Your task to perform on an android device: Open CNN.com Image 0: 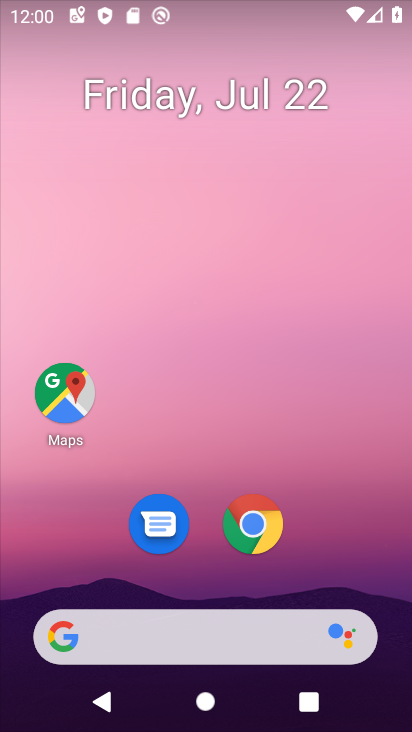
Step 0: click (207, 648)
Your task to perform on an android device: Open CNN.com Image 1: 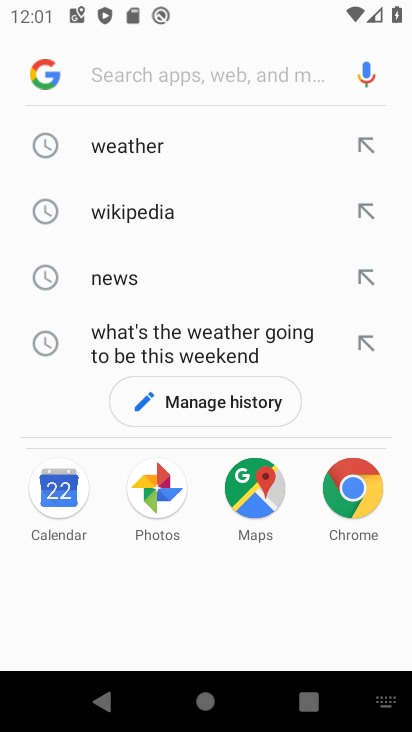
Step 1: type "cnn.com"
Your task to perform on an android device: Open CNN.com Image 2: 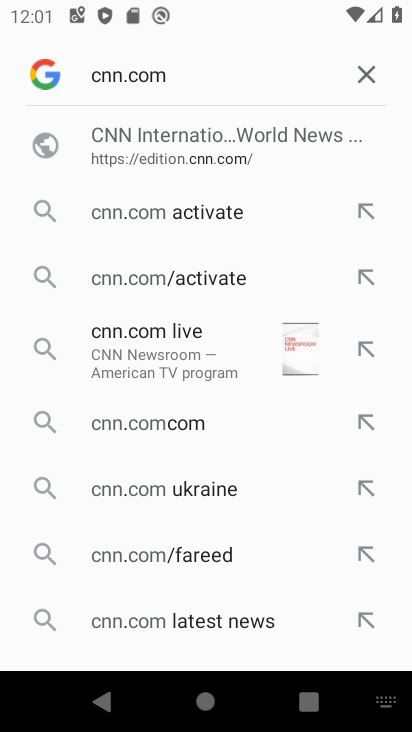
Step 2: click (165, 348)
Your task to perform on an android device: Open CNN.com Image 3: 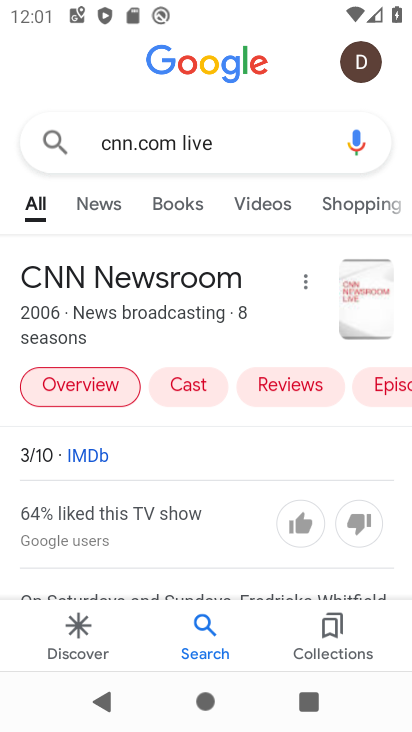
Step 3: click (226, 139)
Your task to perform on an android device: Open CNN.com Image 4: 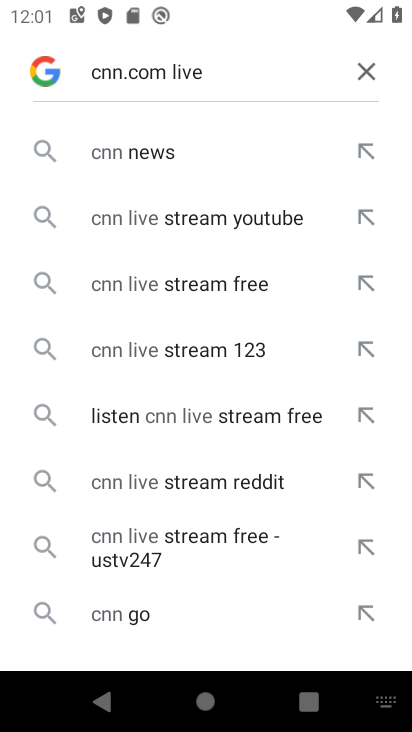
Step 4: click (159, 151)
Your task to perform on an android device: Open CNN.com Image 5: 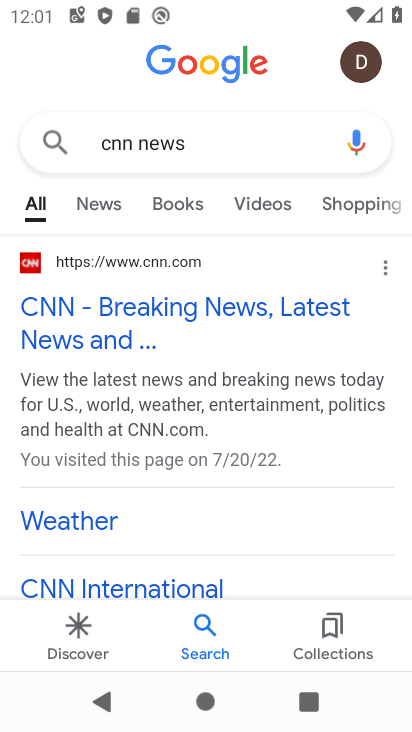
Step 5: click (124, 302)
Your task to perform on an android device: Open CNN.com Image 6: 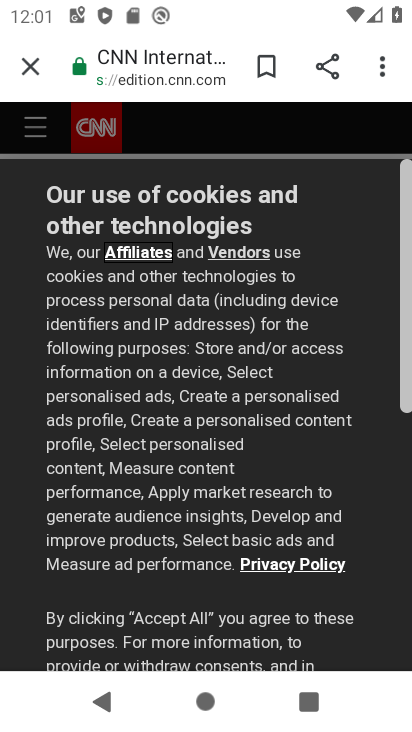
Step 6: drag from (256, 569) to (362, 29)
Your task to perform on an android device: Open CNN.com Image 7: 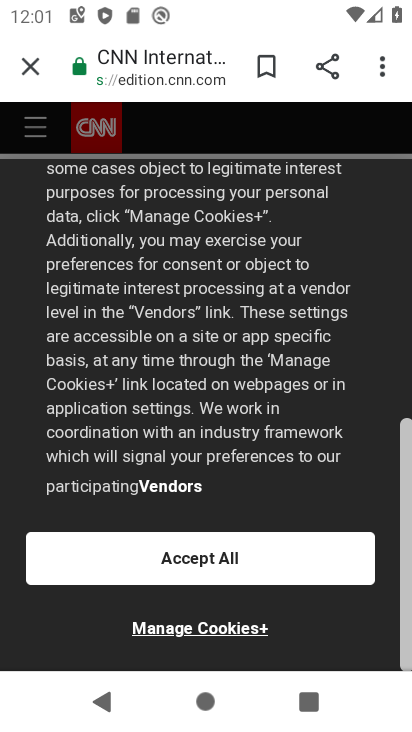
Step 7: click (261, 567)
Your task to perform on an android device: Open CNN.com Image 8: 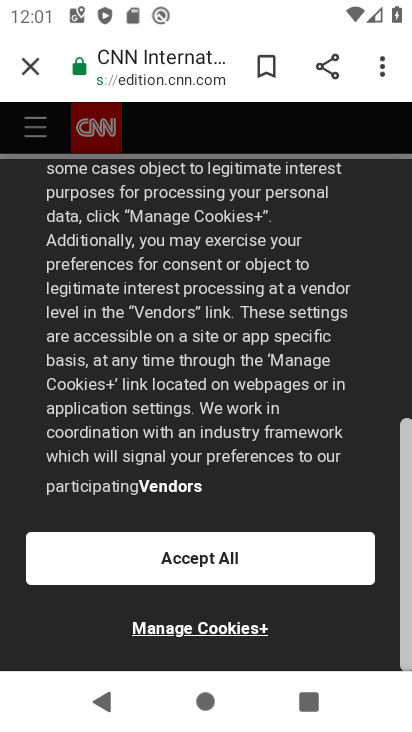
Step 8: task complete